Your task to perform on an android device: Go to wifi settings Image 0: 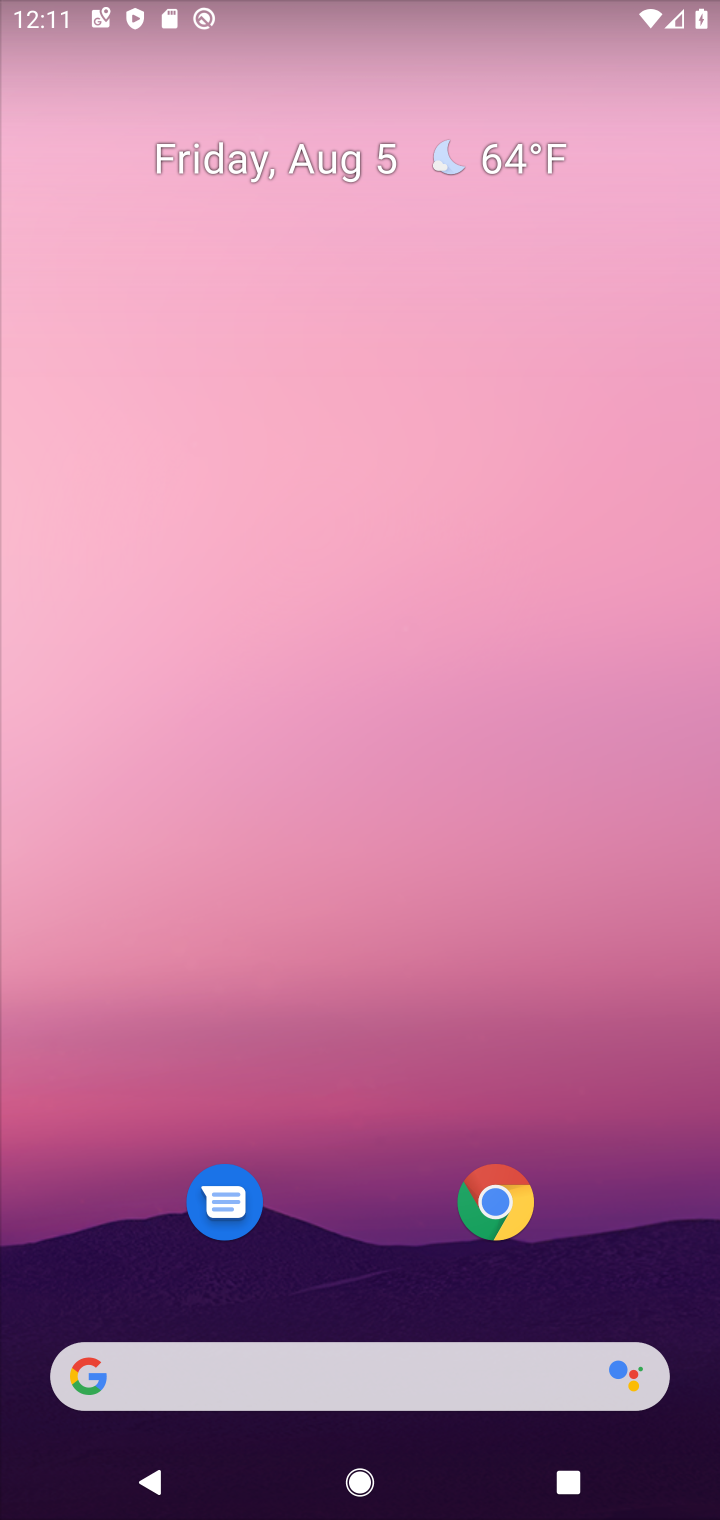
Step 0: drag from (142, 232) to (422, 1328)
Your task to perform on an android device: Go to wifi settings Image 1: 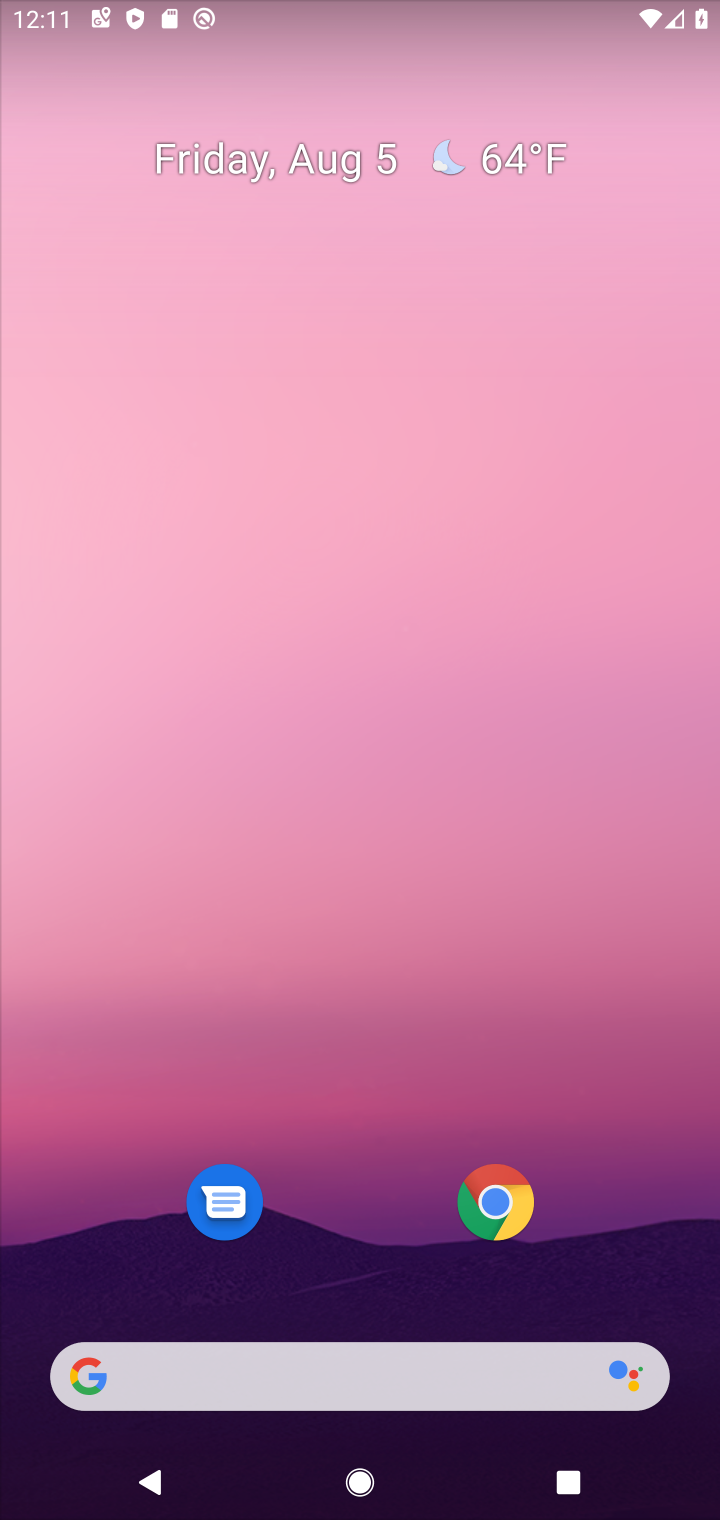
Step 1: drag from (170, 17) to (296, 1241)
Your task to perform on an android device: Go to wifi settings Image 2: 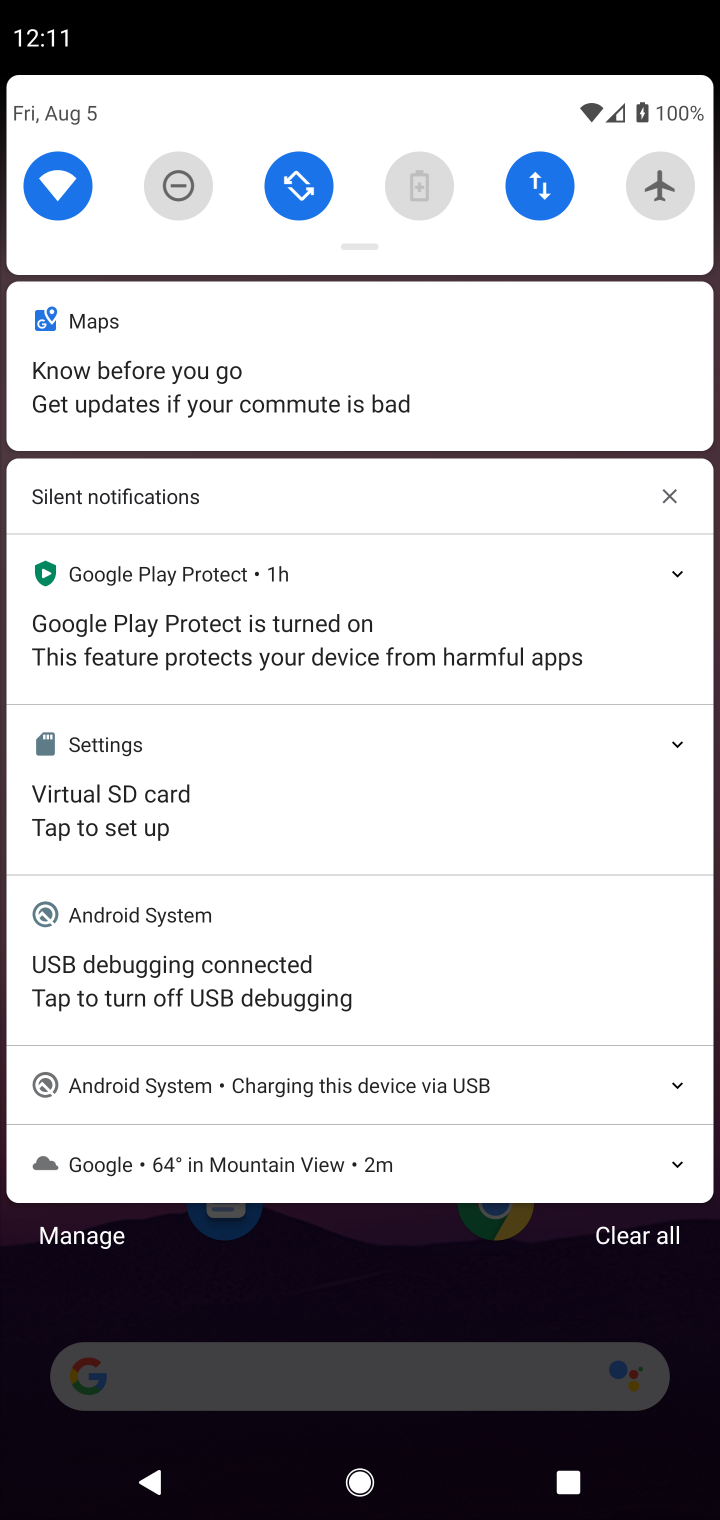
Step 2: click (74, 187)
Your task to perform on an android device: Go to wifi settings Image 3: 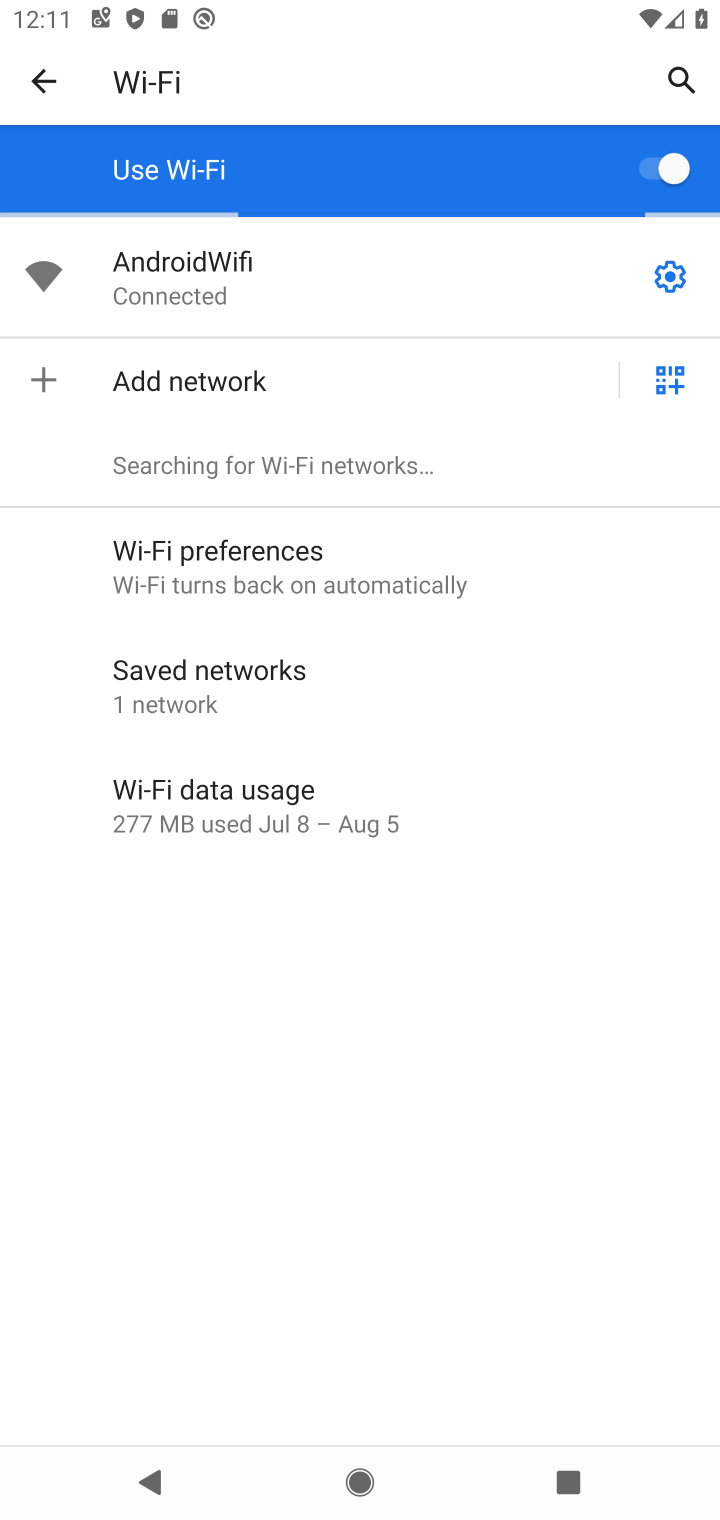
Step 3: task complete